Your task to perform on an android device: turn pop-ups on in chrome Image 0: 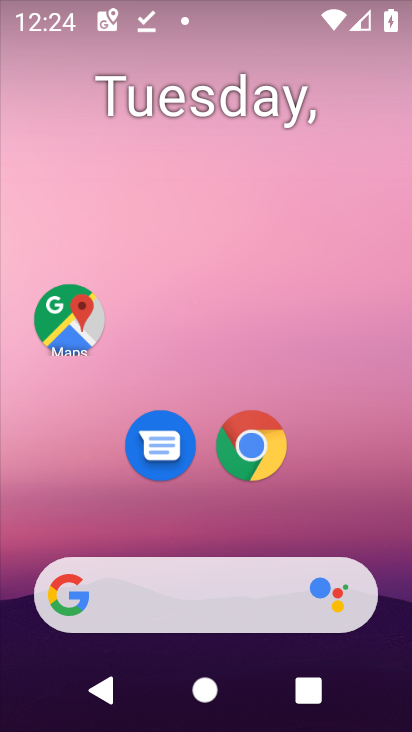
Step 0: click (251, 445)
Your task to perform on an android device: turn pop-ups on in chrome Image 1: 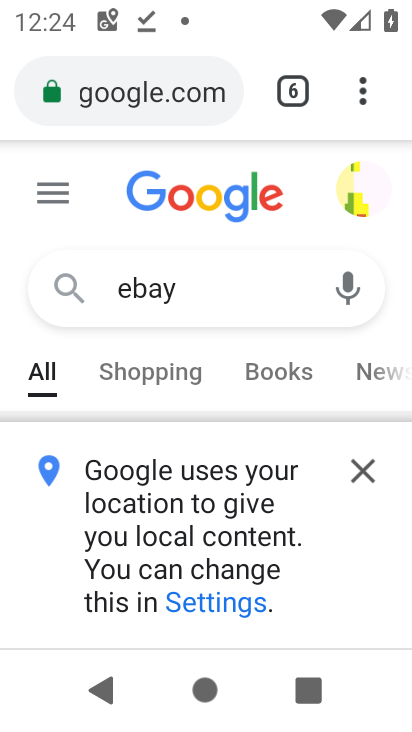
Step 1: click (365, 88)
Your task to perform on an android device: turn pop-ups on in chrome Image 2: 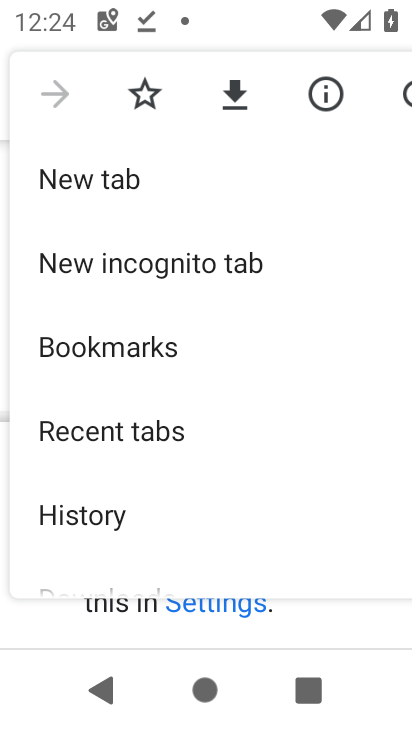
Step 2: drag from (236, 411) to (191, 115)
Your task to perform on an android device: turn pop-ups on in chrome Image 3: 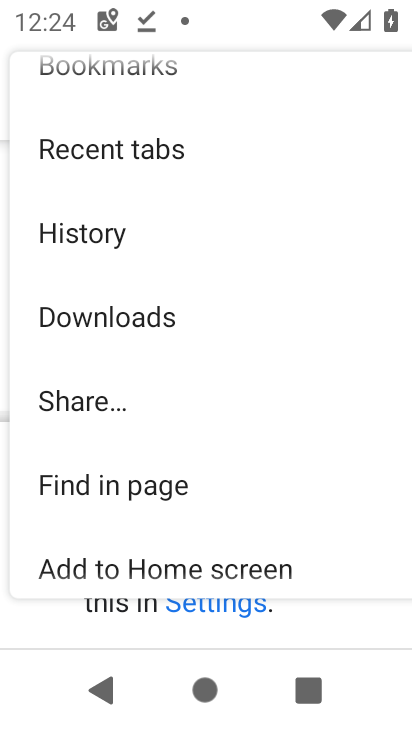
Step 3: drag from (242, 466) to (190, 155)
Your task to perform on an android device: turn pop-ups on in chrome Image 4: 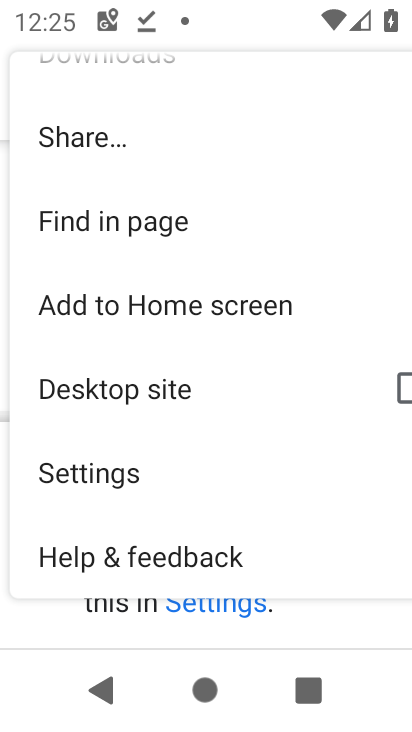
Step 4: drag from (194, 490) to (182, 233)
Your task to perform on an android device: turn pop-ups on in chrome Image 5: 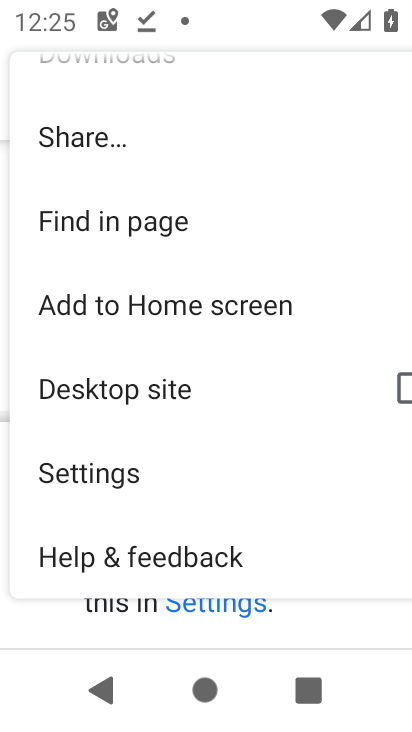
Step 5: click (100, 466)
Your task to perform on an android device: turn pop-ups on in chrome Image 6: 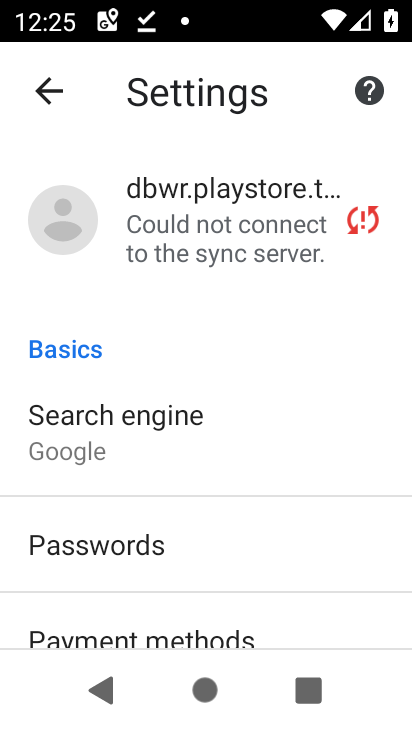
Step 6: drag from (239, 481) to (164, 207)
Your task to perform on an android device: turn pop-ups on in chrome Image 7: 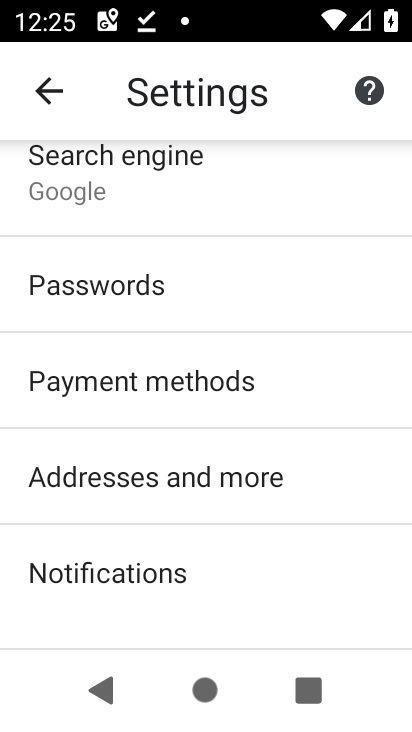
Step 7: drag from (239, 568) to (198, 204)
Your task to perform on an android device: turn pop-ups on in chrome Image 8: 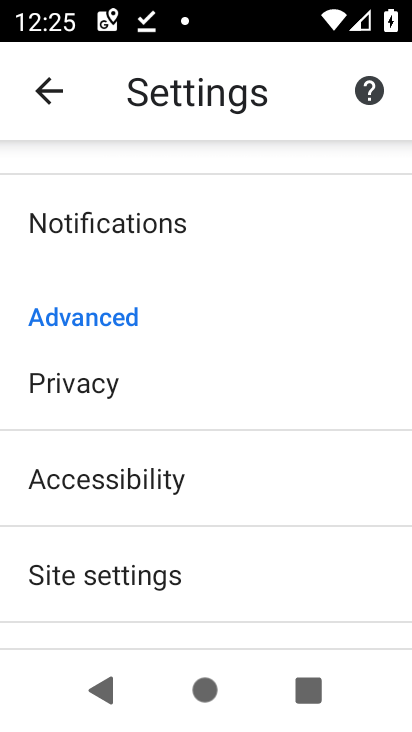
Step 8: click (118, 583)
Your task to perform on an android device: turn pop-ups on in chrome Image 9: 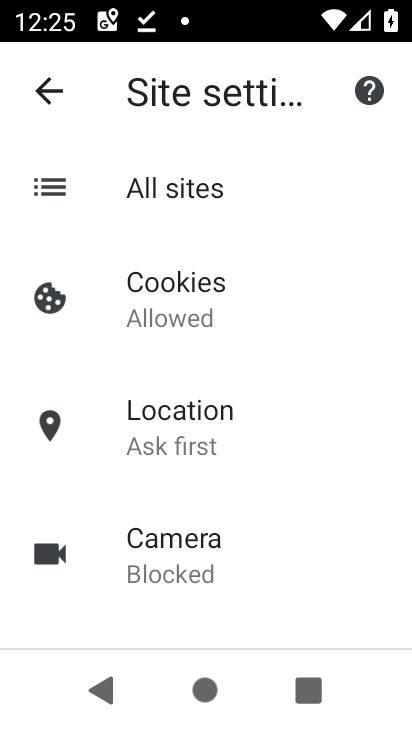
Step 9: drag from (236, 481) to (181, 96)
Your task to perform on an android device: turn pop-ups on in chrome Image 10: 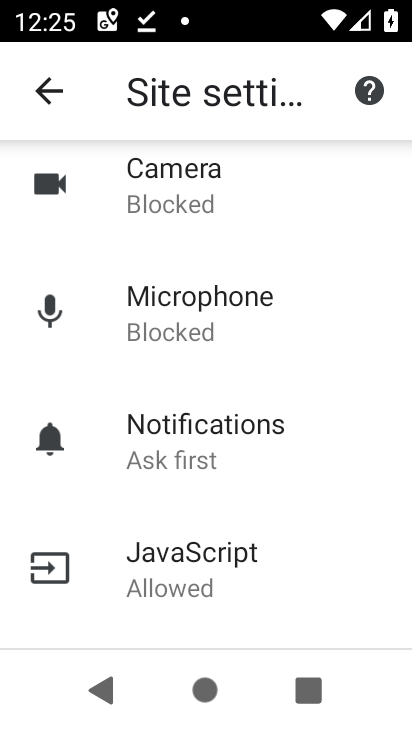
Step 10: drag from (272, 497) to (253, 22)
Your task to perform on an android device: turn pop-ups on in chrome Image 11: 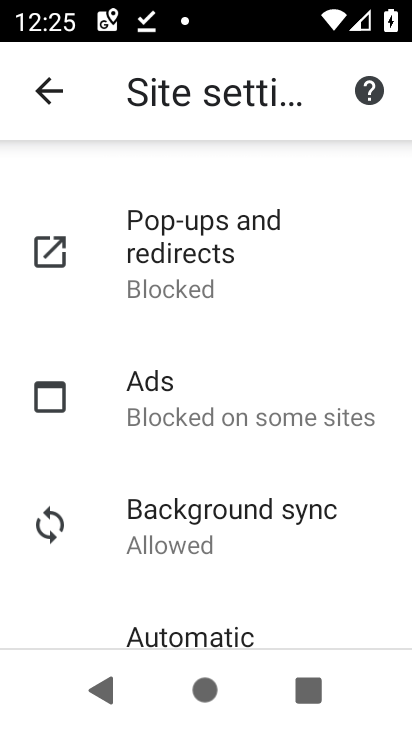
Step 11: click (181, 237)
Your task to perform on an android device: turn pop-ups on in chrome Image 12: 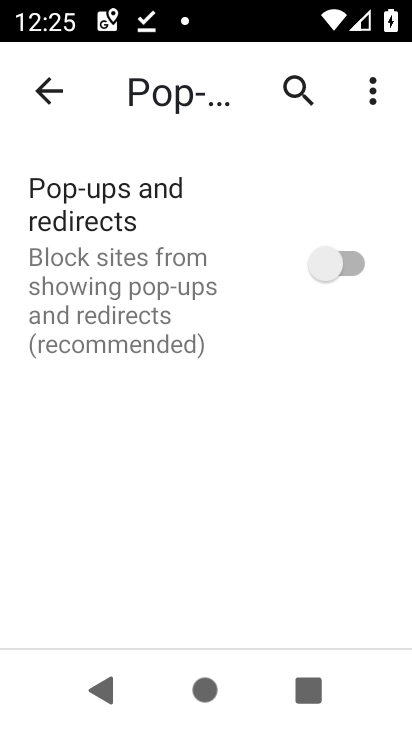
Step 12: click (320, 272)
Your task to perform on an android device: turn pop-ups on in chrome Image 13: 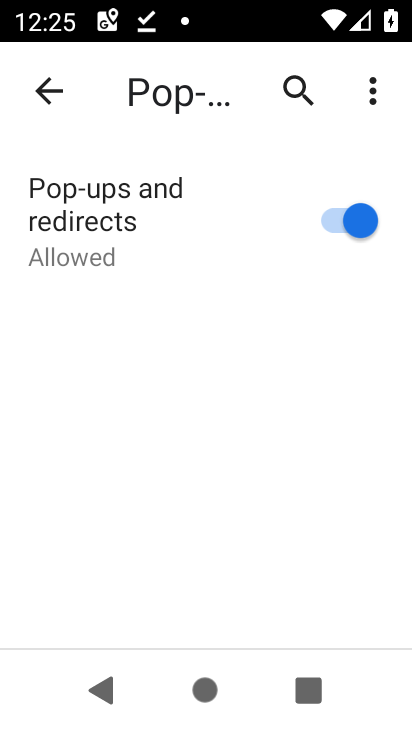
Step 13: task complete